Your task to perform on an android device: change notification settings in the gmail app Image 0: 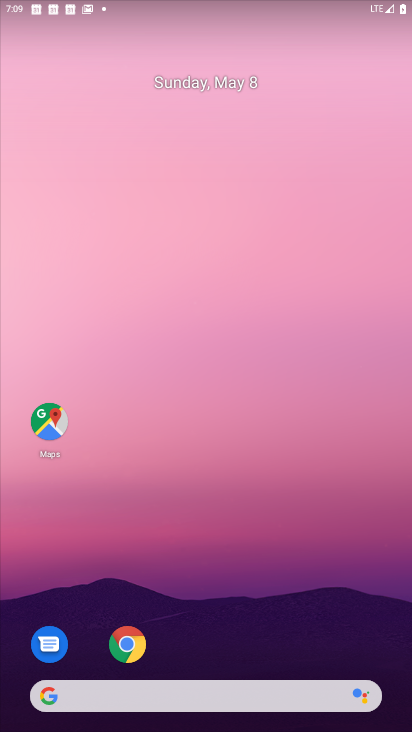
Step 0: drag from (261, 614) to (286, 160)
Your task to perform on an android device: change notification settings in the gmail app Image 1: 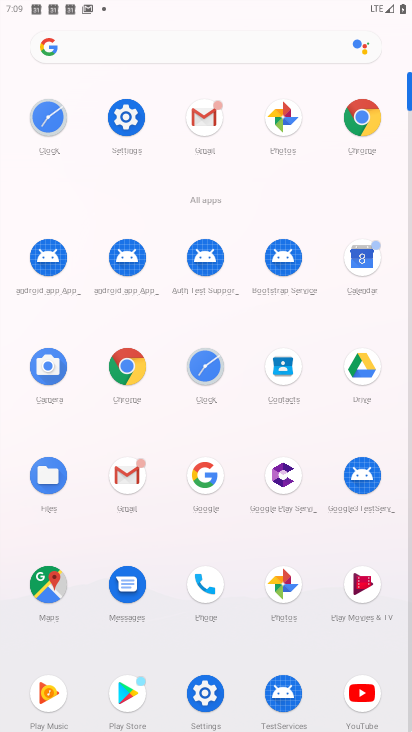
Step 1: click (132, 474)
Your task to perform on an android device: change notification settings in the gmail app Image 2: 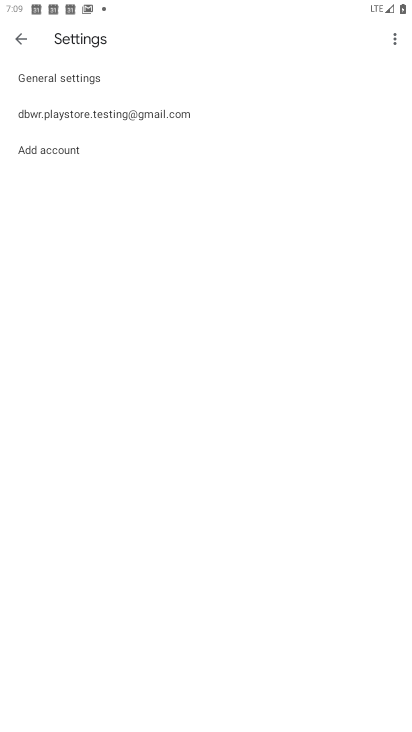
Step 2: click (63, 114)
Your task to perform on an android device: change notification settings in the gmail app Image 3: 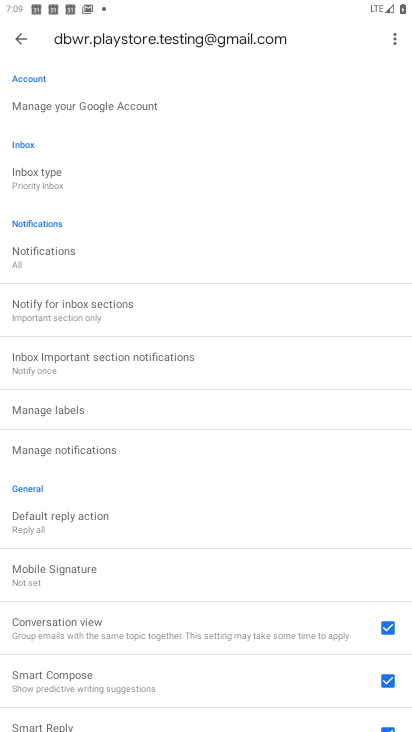
Step 3: click (75, 265)
Your task to perform on an android device: change notification settings in the gmail app Image 4: 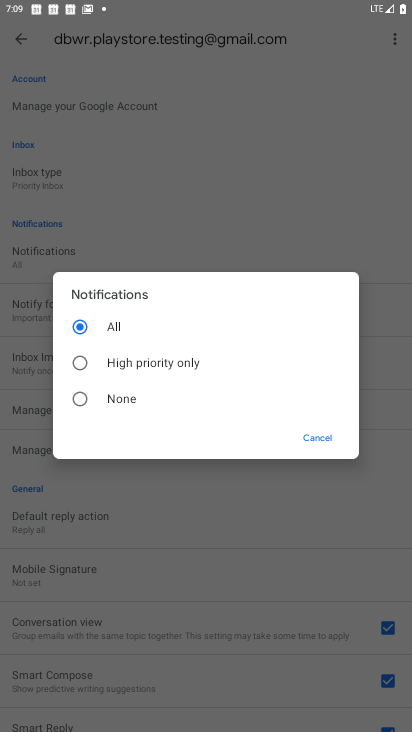
Step 4: click (111, 358)
Your task to perform on an android device: change notification settings in the gmail app Image 5: 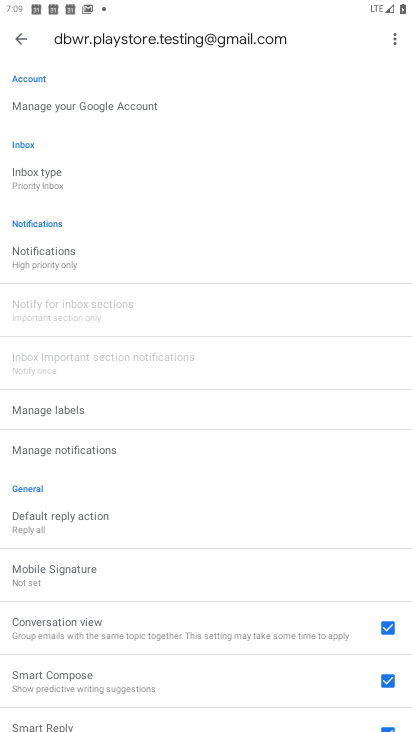
Step 5: task complete